Your task to perform on an android device: change the clock display to show seconds Image 0: 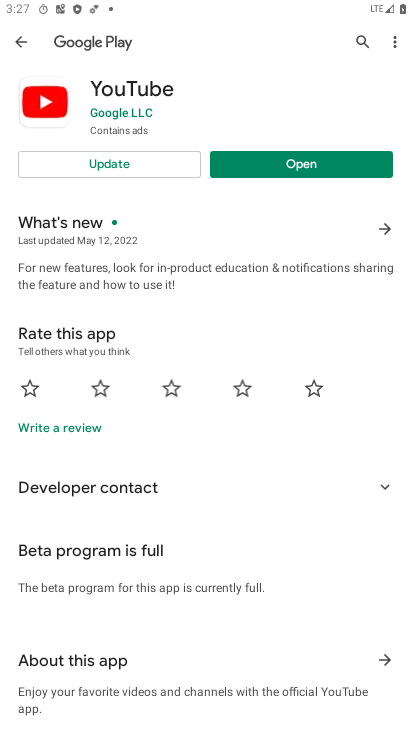
Step 0: press home button
Your task to perform on an android device: change the clock display to show seconds Image 1: 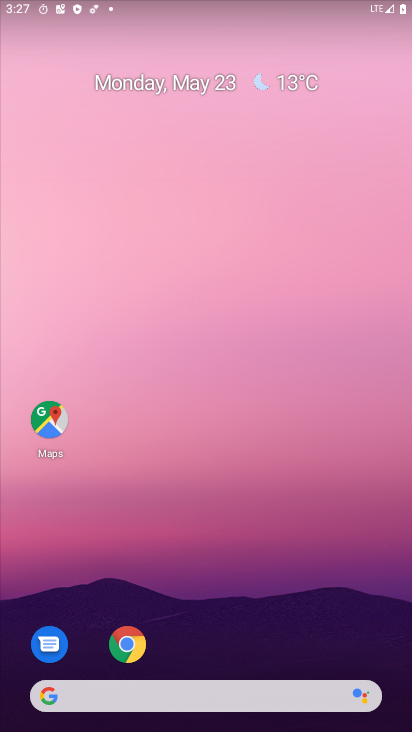
Step 1: drag from (231, 677) to (203, 33)
Your task to perform on an android device: change the clock display to show seconds Image 2: 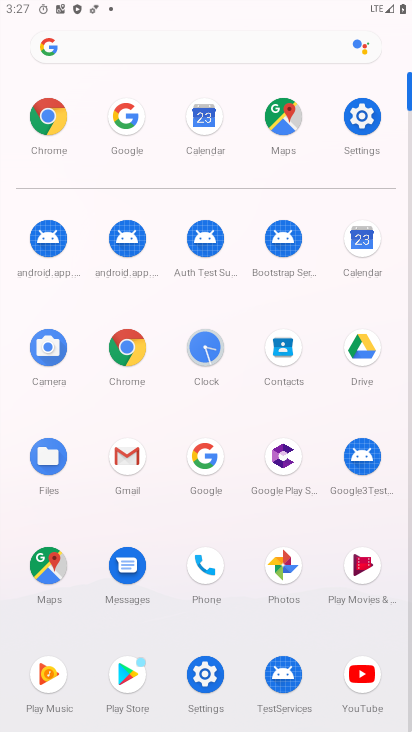
Step 2: click (199, 344)
Your task to perform on an android device: change the clock display to show seconds Image 3: 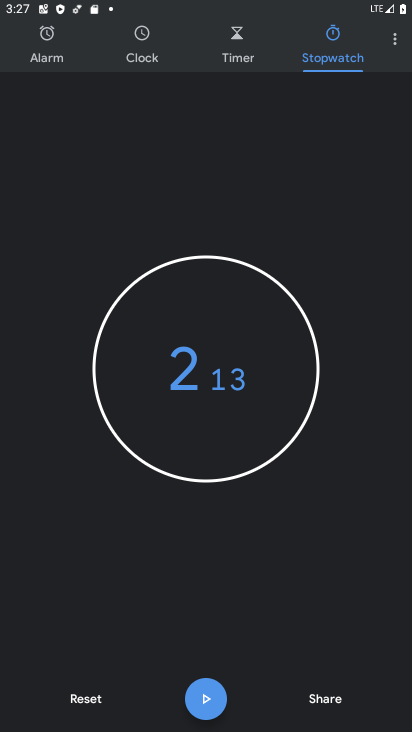
Step 3: click (396, 41)
Your task to perform on an android device: change the clock display to show seconds Image 4: 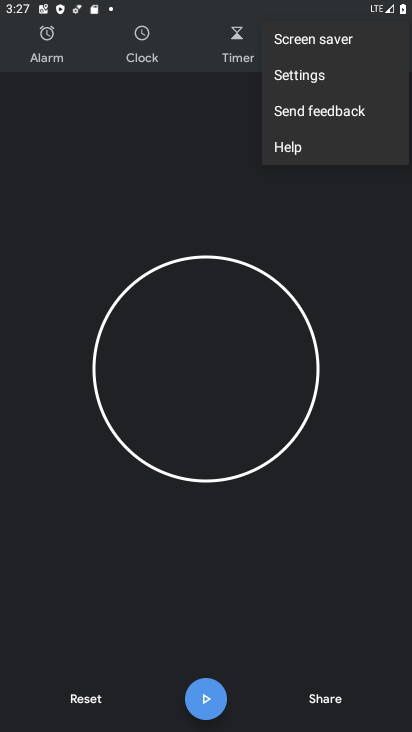
Step 4: click (282, 81)
Your task to perform on an android device: change the clock display to show seconds Image 5: 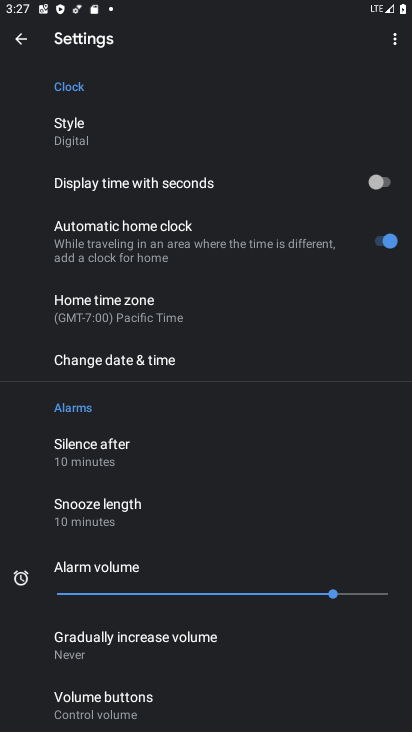
Step 5: drag from (140, 539) to (71, 13)
Your task to perform on an android device: change the clock display to show seconds Image 6: 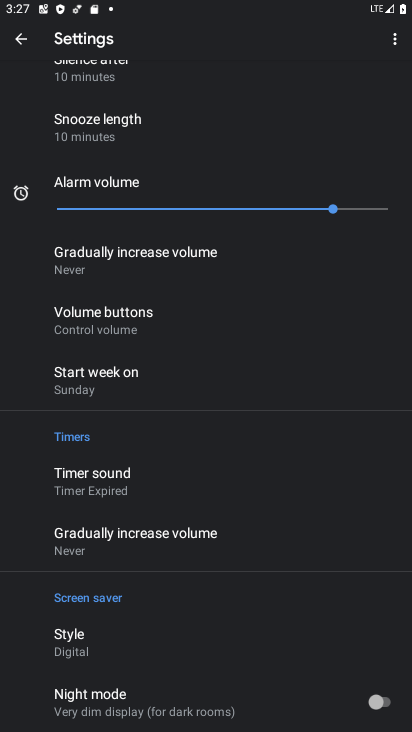
Step 6: drag from (189, 293) to (187, 714)
Your task to perform on an android device: change the clock display to show seconds Image 7: 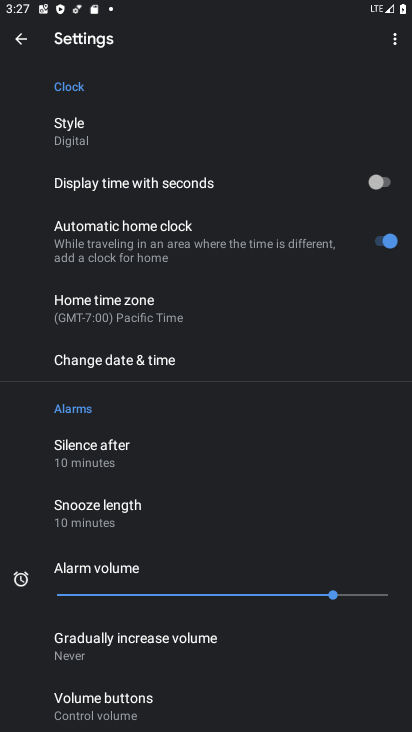
Step 7: click (138, 191)
Your task to perform on an android device: change the clock display to show seconds Image 8: 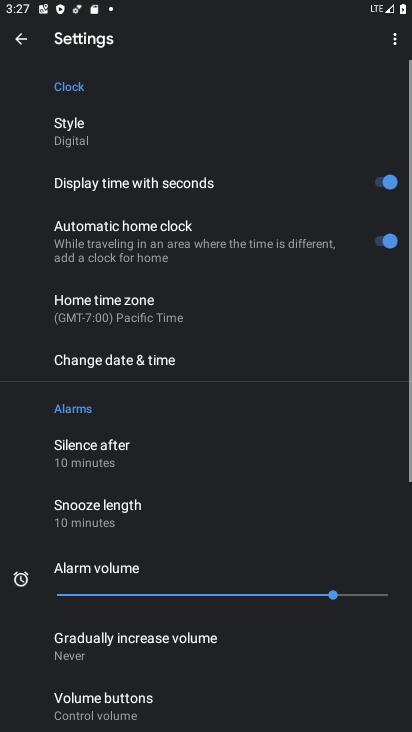
Step 8: task complete